Your task to perform on an android device: Go to Google Image 0: 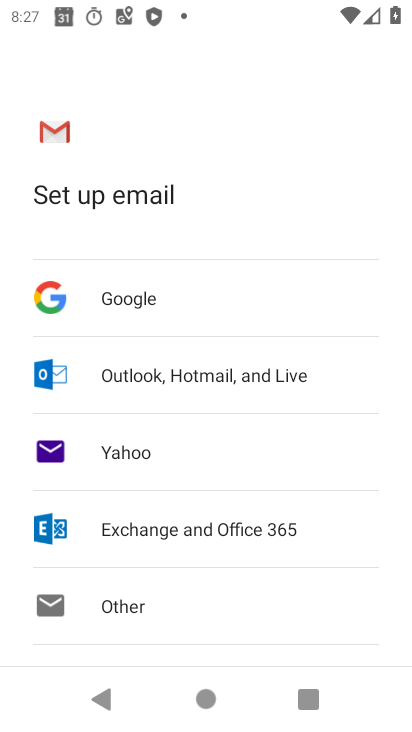
Step 0: press home button
Your task to perform on an android device: Go to Google Image 1: 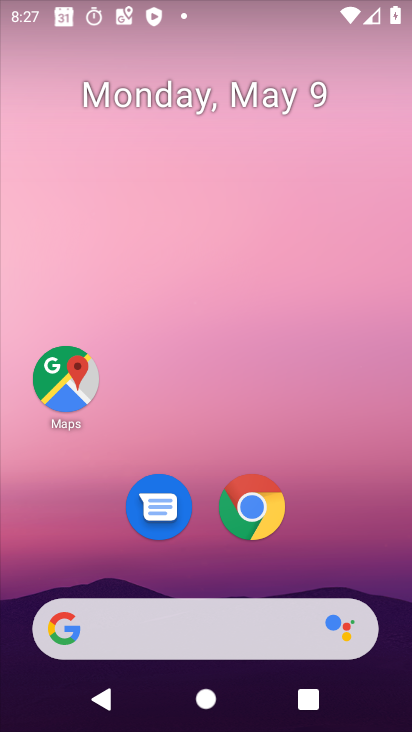
Step 1: drag from (259, 676) to (274, 147)
Your task to perform on an android device: Go to Google Image 2: 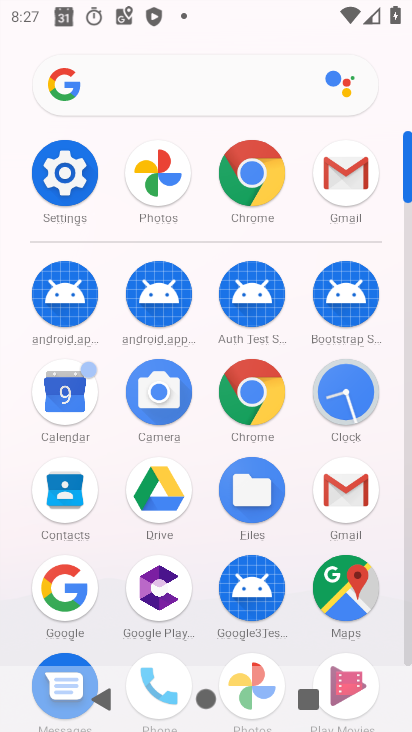
Step 2: click (70, 102)
Your task to perform on an android device: Go to Google Image 3: 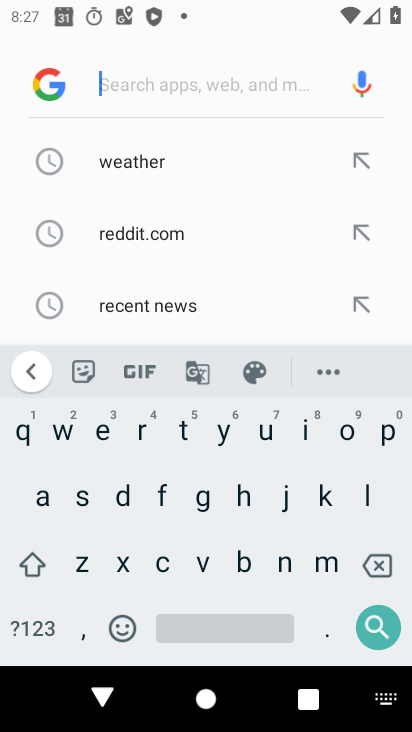
Step 3: click (36, 93)
Your task to perform on an android device: Go to Google Image 4: 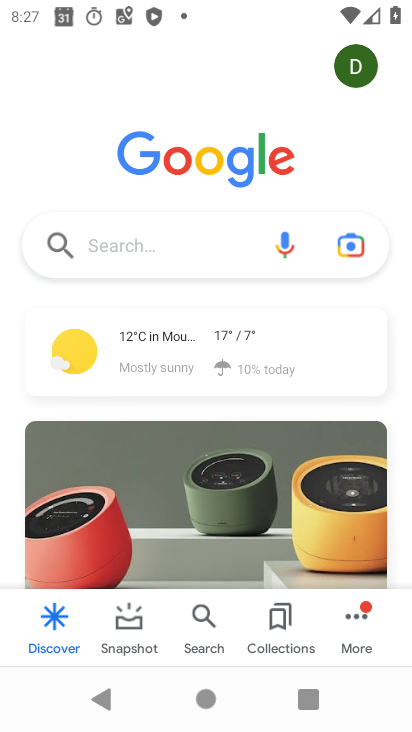
Step 4: task complete